Your task to perform on an android device: turn on the 24-hour format for clock Image 0: 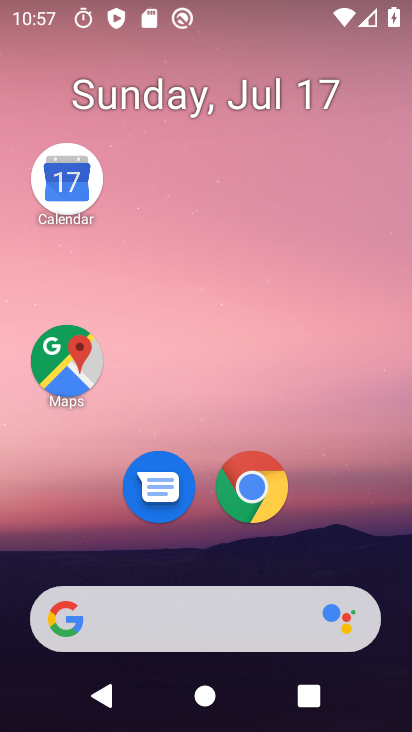
Step 0: drag from (356, 430) to (354, 224)
Your task to perform on an android device: turn on the 24-hour format for clock Image 1: 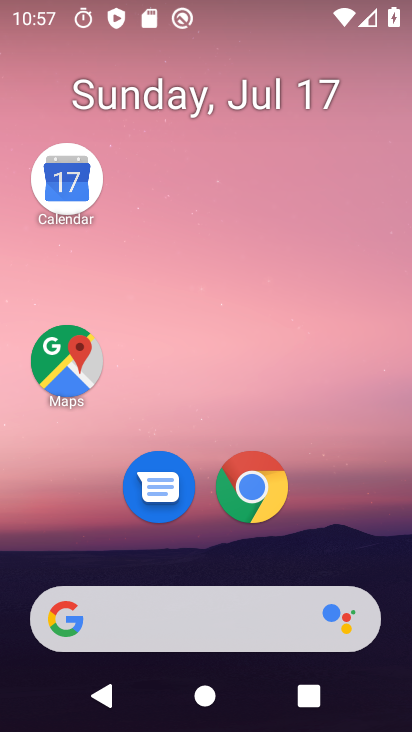
Step 1: drag from (327, 550) to (298, 174)
Your task to perform on an android device: turn on the 24-hour format for clock Image 2: 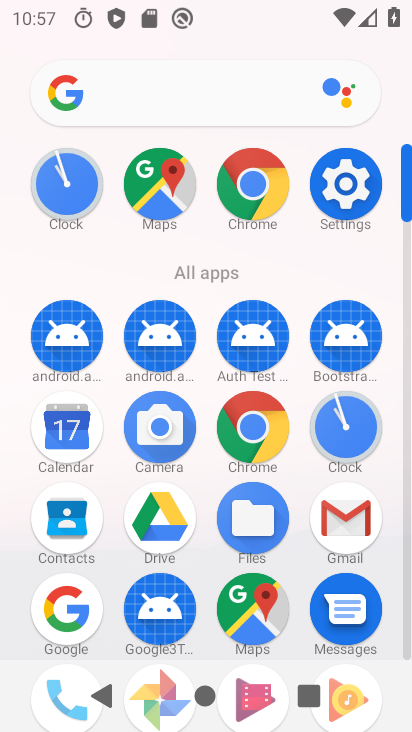
Step 2: drag from (333, 413) to (202, 223)
Your task to perform on an android device: turn on the 24-hour format for clock Image 3: 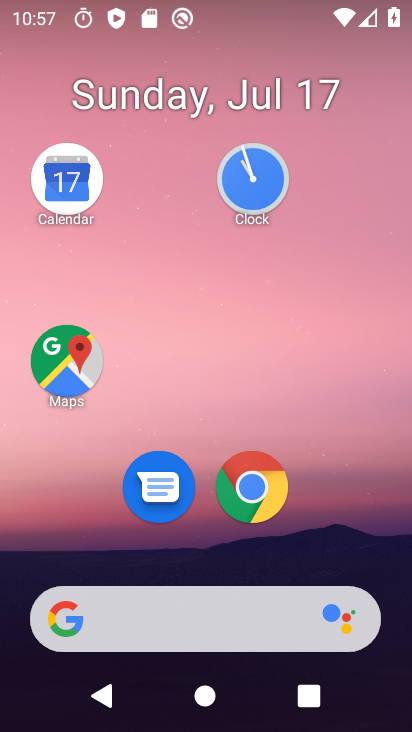
Step 3: click (251, 164)
Your task to perform on an android device: turn on the 24-hour format for clock Image 4: 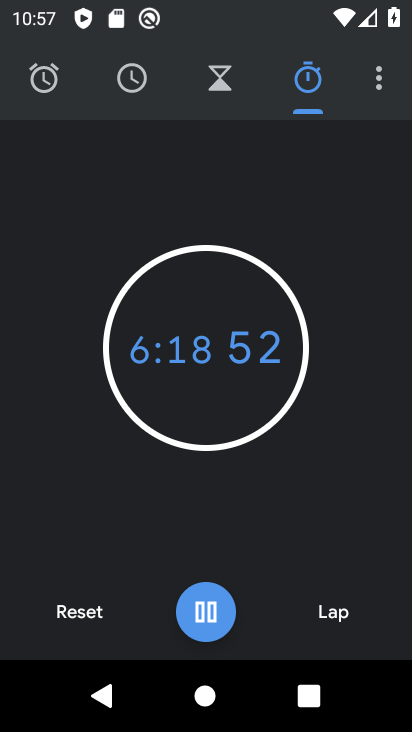
Step 4: click (396, 70)
Your task to perform on an android device: turn on the 24-hour format for clock Image 5: 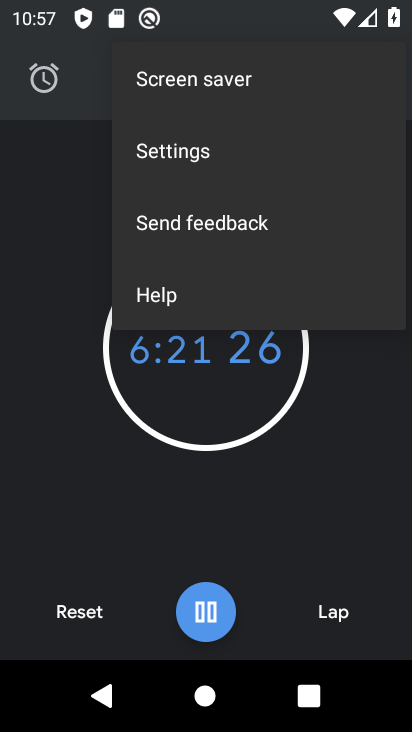
Step 5: click (201, 148)
Your task to perform on an android device: turn on the 24-hour format for clock Image 6: 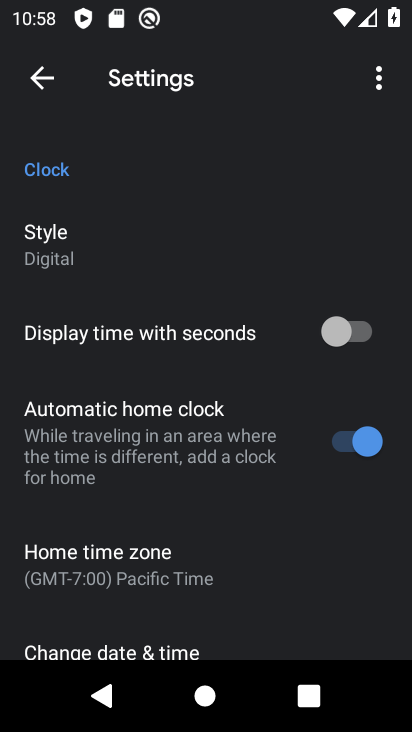
Step 6: drag from (130, 559) to (135, 225)
Your task to perform on an android device: turn on the 24-hour format for clock Image 7: 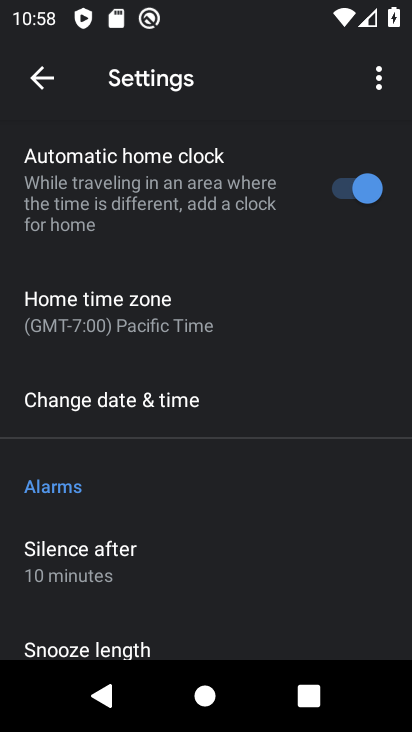
Step 7: click (120, 393)
Your task to perform on an android device: turn on the 24-hour format for clock Image 8: 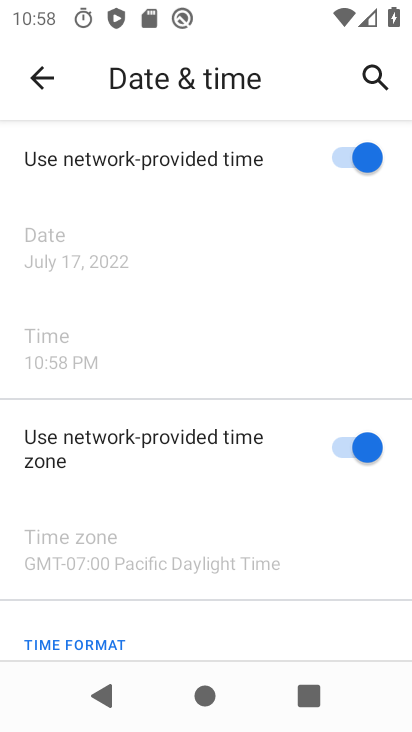
Step 8: drag from (135, 532) to (116, 291)
Your task to perform on an android device: turn on the 24-hour format for clock Image 9: 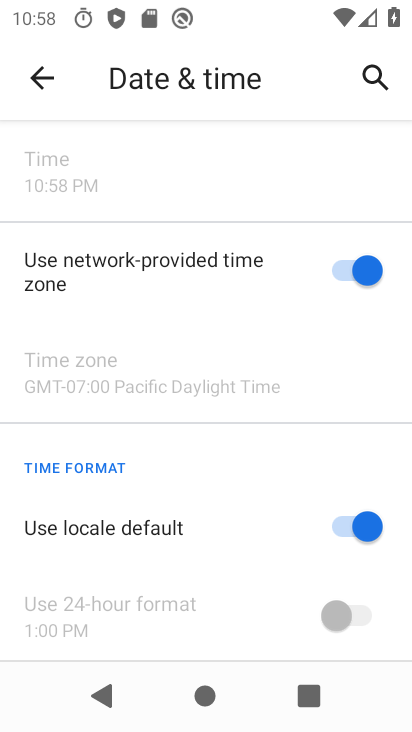
Step 9: click (355, 623)
Your task to perform on an android device: turn on the 24-hour format for clock Image 10: 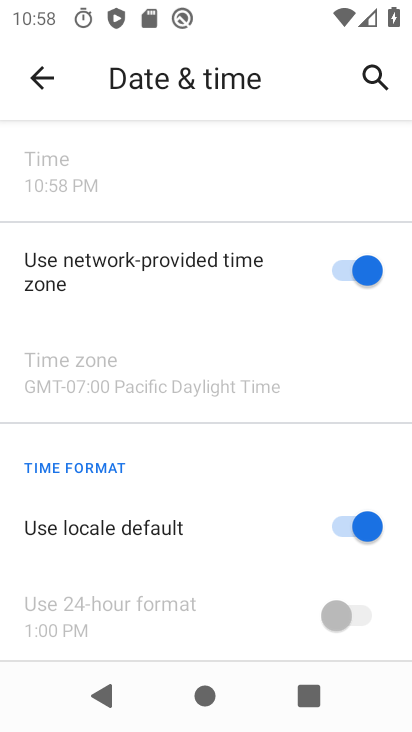
Step 10: click (360, 529)
Your task to perform on an android device: turn on the 24-hour format for clock Image 11: 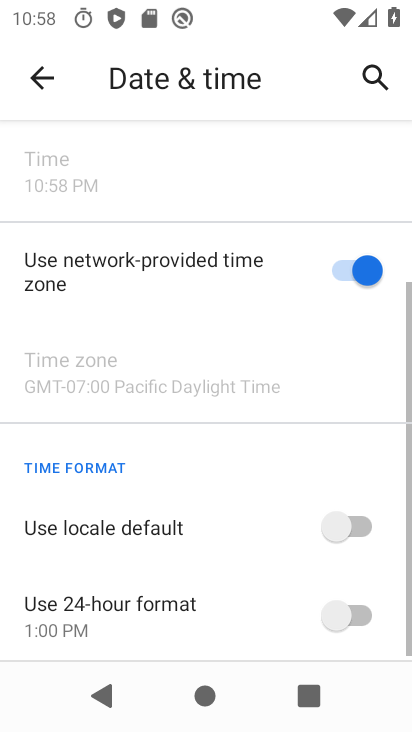
Step 11: click (327, 611)
Your task to perform on an android device: turn on the 24-hour format for clock Image 12: 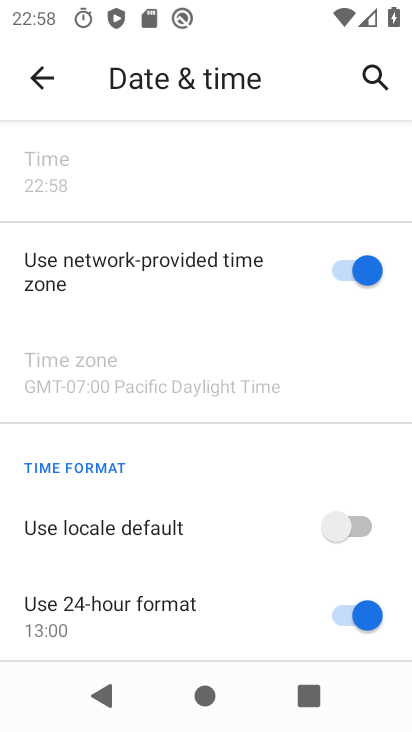
Step 12: task complete